Your task to perform on an android device: toggle pop-ups in chrome Image 0: 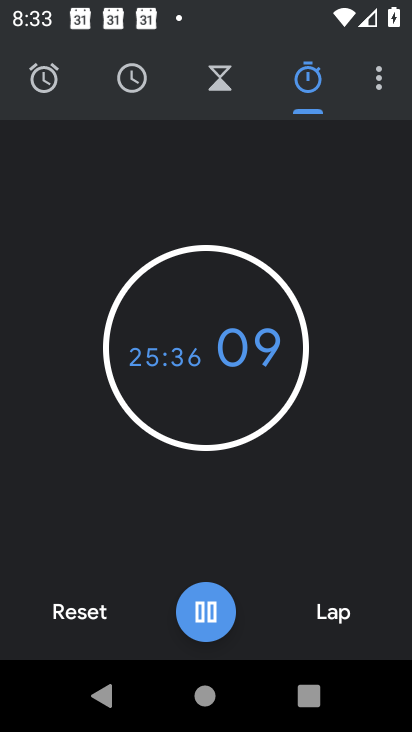
Step 0: press home button
Your task to perform on an android device: toggle pop-ups in chrome Image 1: 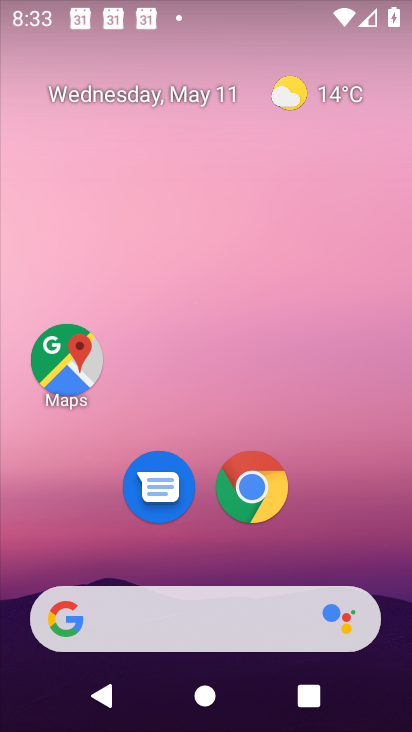
Step 1: click (250, 492)
Your task to perform on an android device: toggle pop-ups in chrome Image 2: 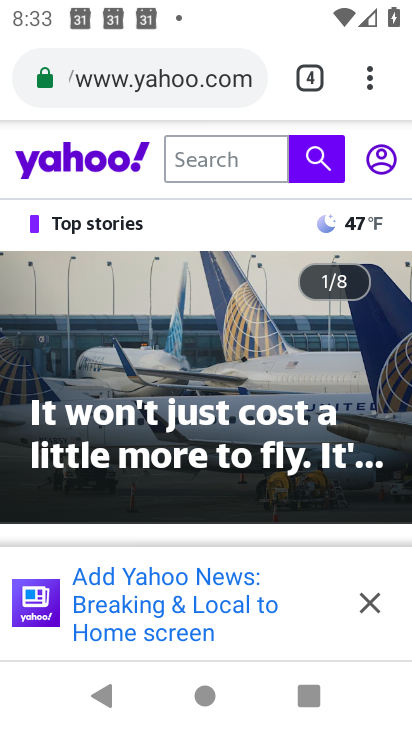
Step 2: click (368, 85)
Your task to perform on an android device: toggle pop-ups in chrome Image 3: 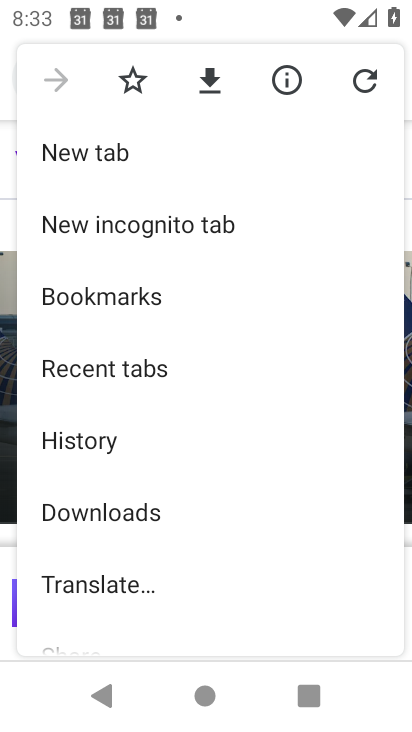
Step 3: drag from (101, 589) to (107, 202)
Your task to perform on an android device: toggle pop-ups in chrome Image 4: 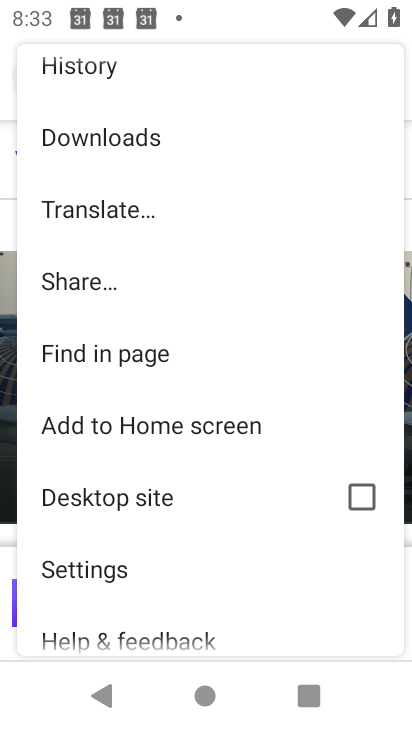
Step 4: click (90, 569)
Your task to perform on an android device: toggle pop-ups in chrome Image 5: 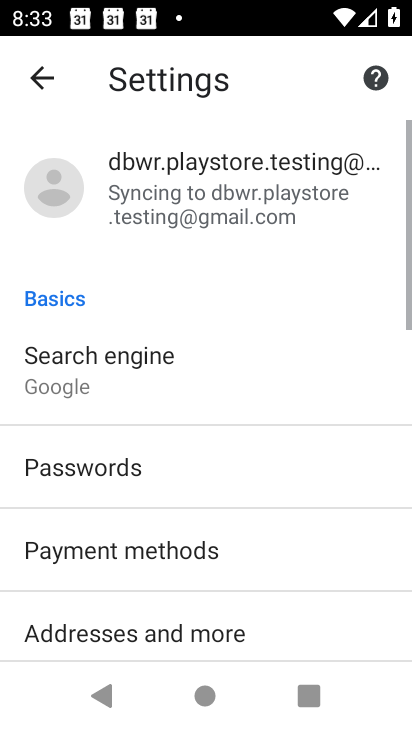
Step 5: drag from (158, 625) to (168, 192)
Your task to perform on an android device: toggle pop-ups in chrome Image 6: 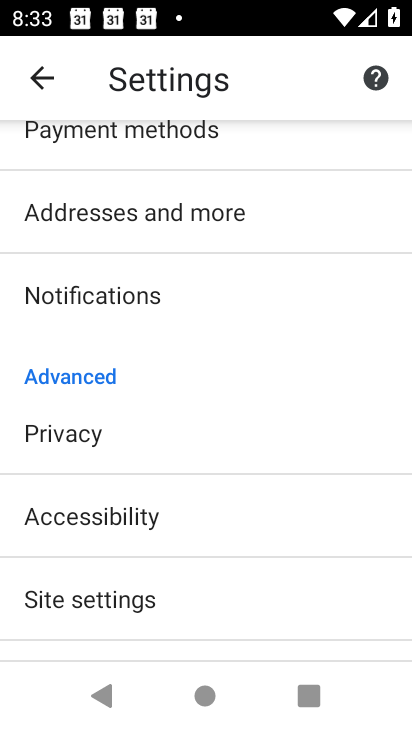
Step 6: click (110, 593)
Your task to perform on an android device: toggle pop-ups in chrome Image 7: 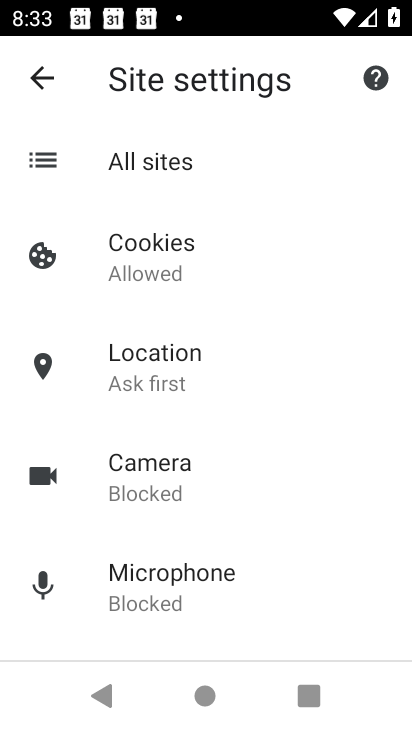
Step 7: drag from (137, 623) to (149, 241)
Your task to perform on an android device: toggle pop-ups in chrome Image 8: 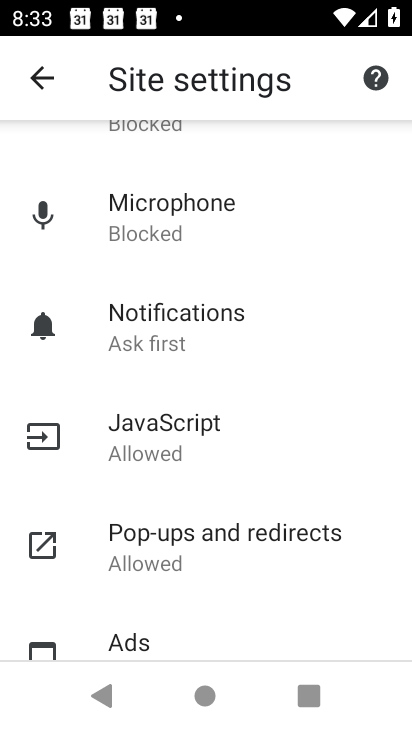
Step 8: drag from (188, 604) to (191, 212)
Your task to perform on an android device: toggle pop-ups in chrome Image 9: 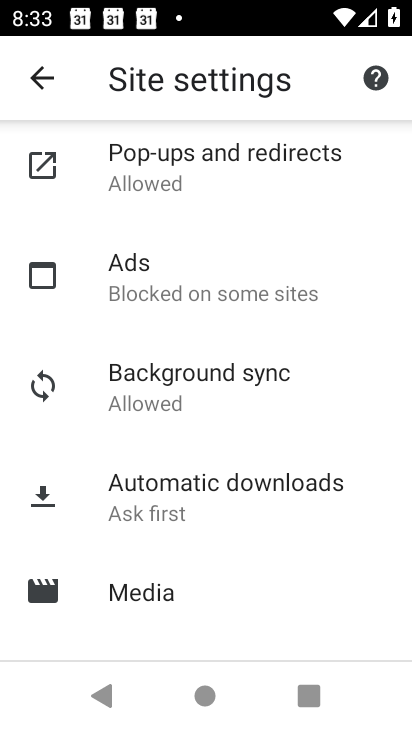
Step 9: drag from (217, 594) to (222, 187)
Your task to perform on an android device: toggle pop-ups in chrome Image 10: 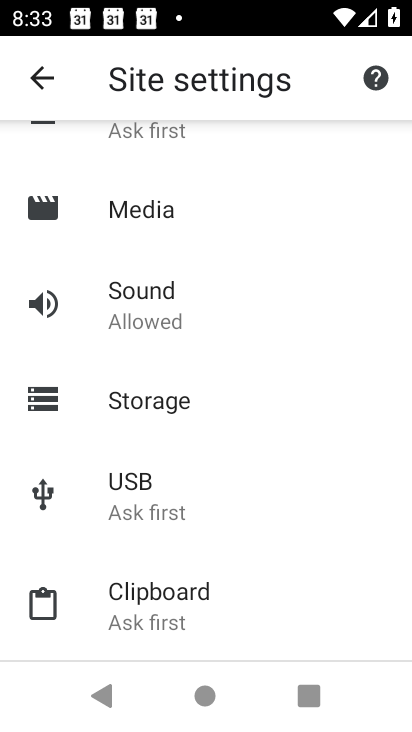
Step 10: drag from (264, 206) to (268, 510)
Your task to perform on an android device: toggle pop-ups in chrome Image 11: 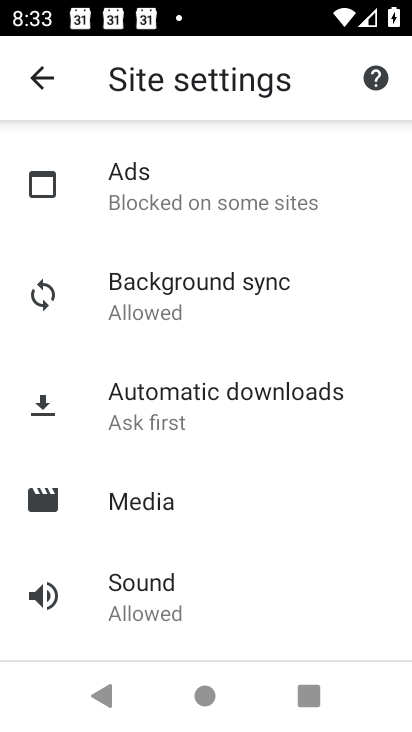
Step 11: drag from (287, 187) to (278, 558)
Your task to perform on an android device: toggle pop-ups in chrome Image 12: 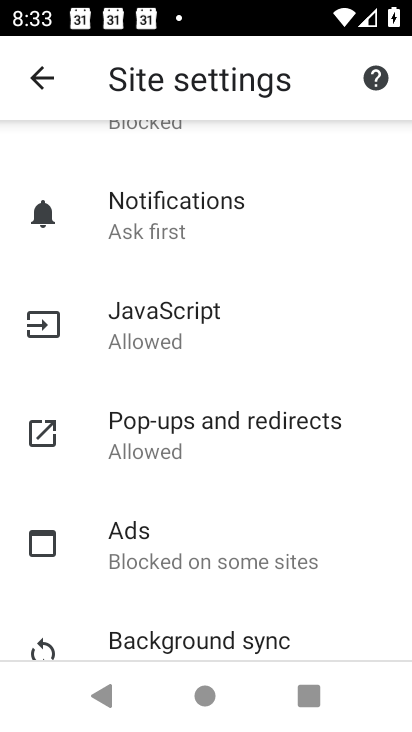
Step 12: drag from (261, 217) to (251, 569)
Your task to perform on an android device: toggle pop-ups in chrome Image 13: 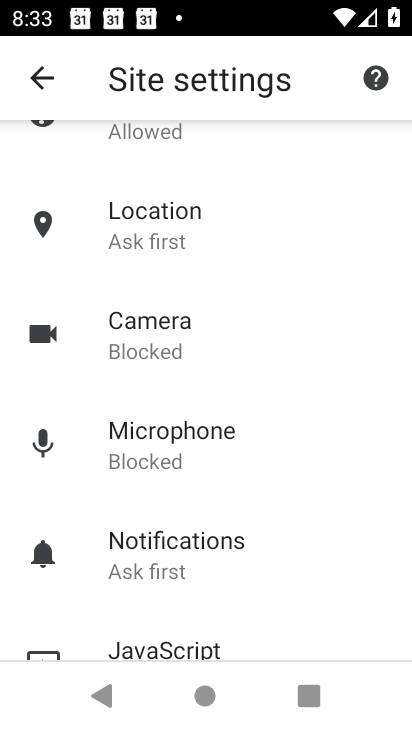
Step 13: drag from (252, 595) to (281, 168)
Your task to perform on an android device: toggle pop-ups in chrome Image 14: 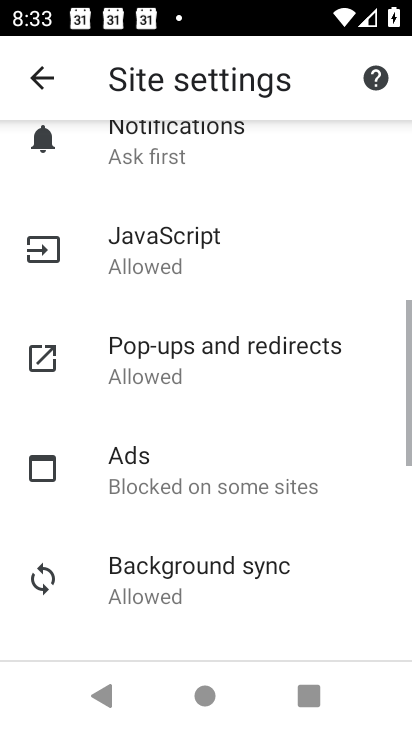
Step 14: click (179, 353)
Your task to perform on an android device: toggle pop-ups in chrome Image 15: 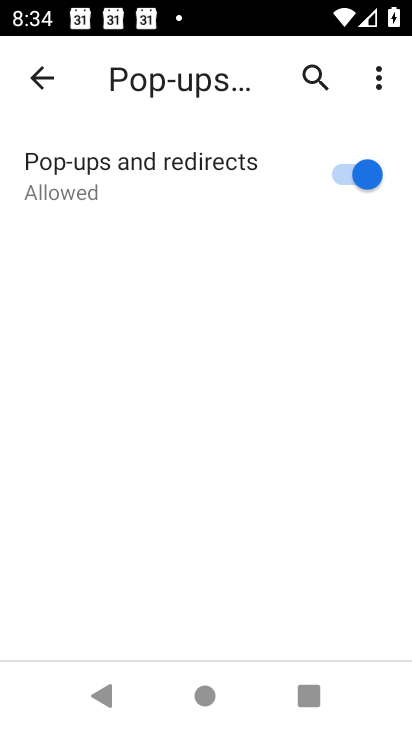
Step 15: click (338, 179)
Your task to perform on an android device: toggle pop-ups in chrome Image 16: 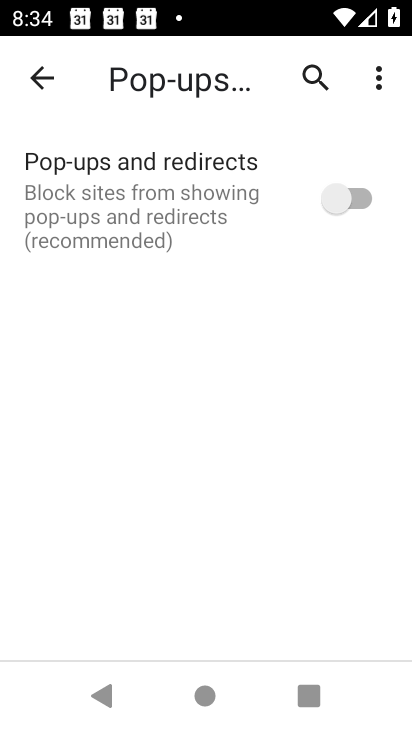
Step 16: task complete